Your task to perform on an android device: change the clock display to show seconds Image 0: 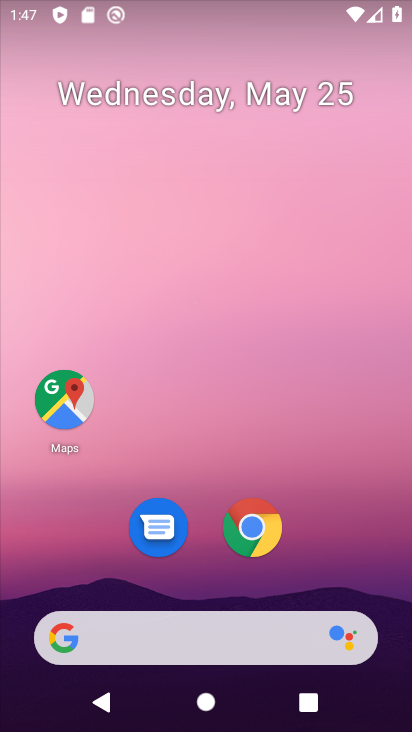
Step 0: drag from (221, 579) to (406, 76)
Your task to perform on an android device: change the clock display to show seconds Image 1: 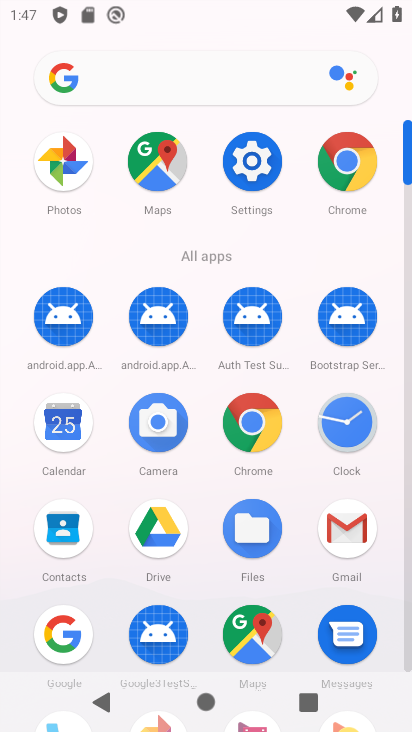
Step 1: click (345, 431)
Your task to perform on an android device: change the clock display to show seconds Image 2: 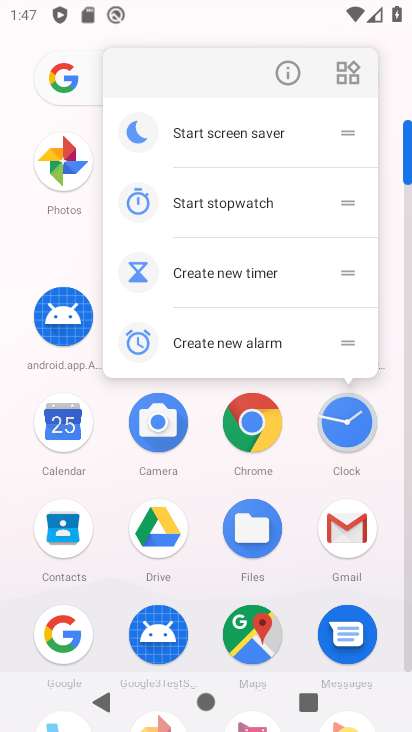
Step 2: click (286, 71)
Your task to perform on an android device: change the clock display to show seconds Image 3: 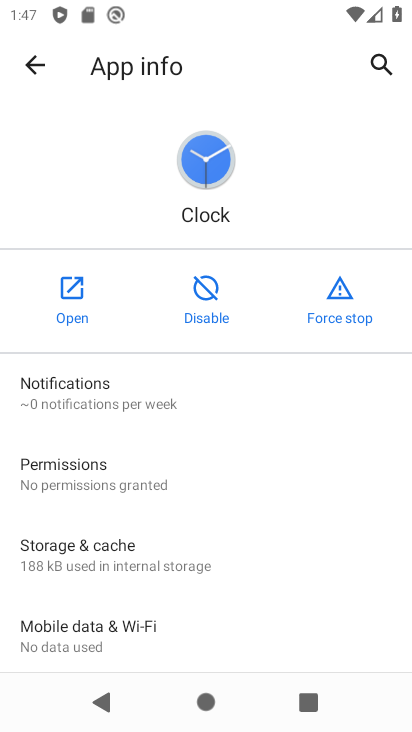
Step 3: click (73, 298)
Your task to perform on an android device: change the clock display to show seconds Image 4: 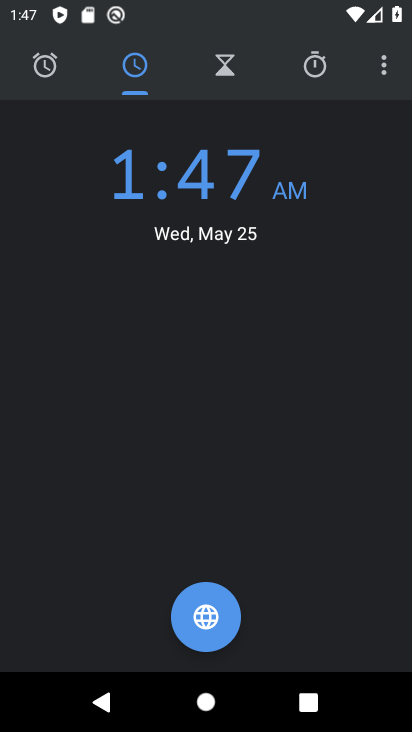
Step 4: click (388, 61)
Your task to perform on an android device: change the clock display to show seconds Image 5: 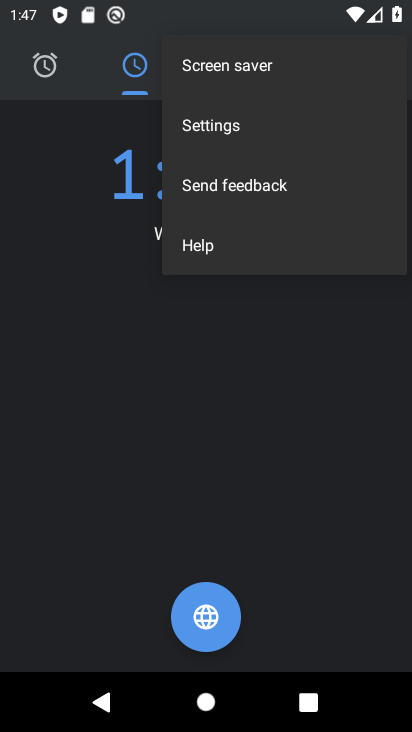
Step 5: click (261, 123)
Your task to perform on an android device: change the clock display to show seconds Image 6: 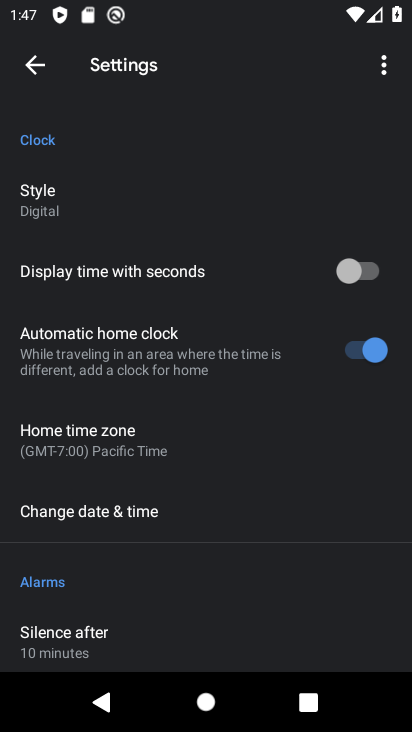
Step 6: click (358, 263)
Your task to perform on an android device: change the clock display to show seconds Image 7: 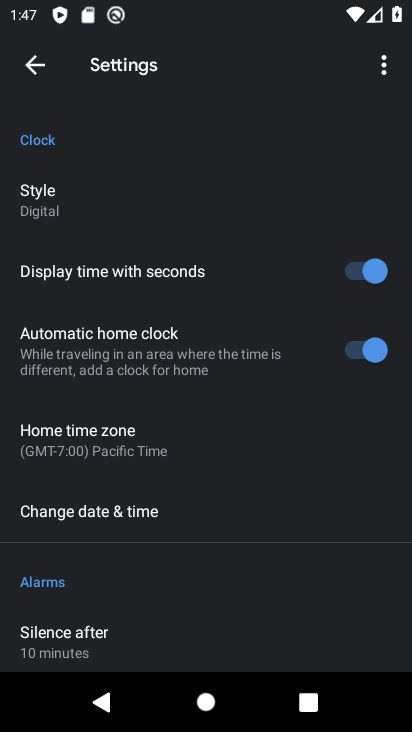
Step 7: task complete